Your task to perform on an android device: open app "Expedia: Hotels, Flights & Car" Image 0: 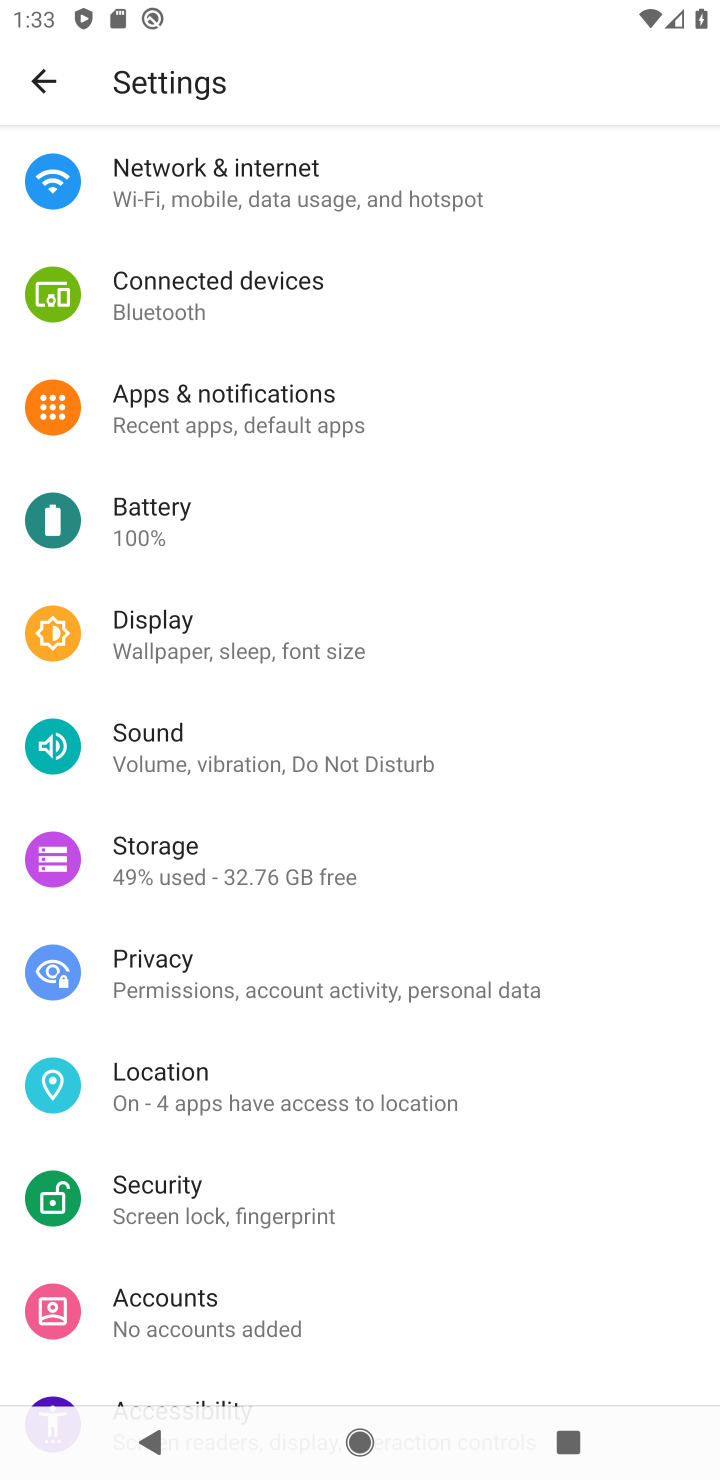
Step 0: press back button
Your task to perform on an android device: open app "Expedia: Hotels, Flights & Car" Image 1: 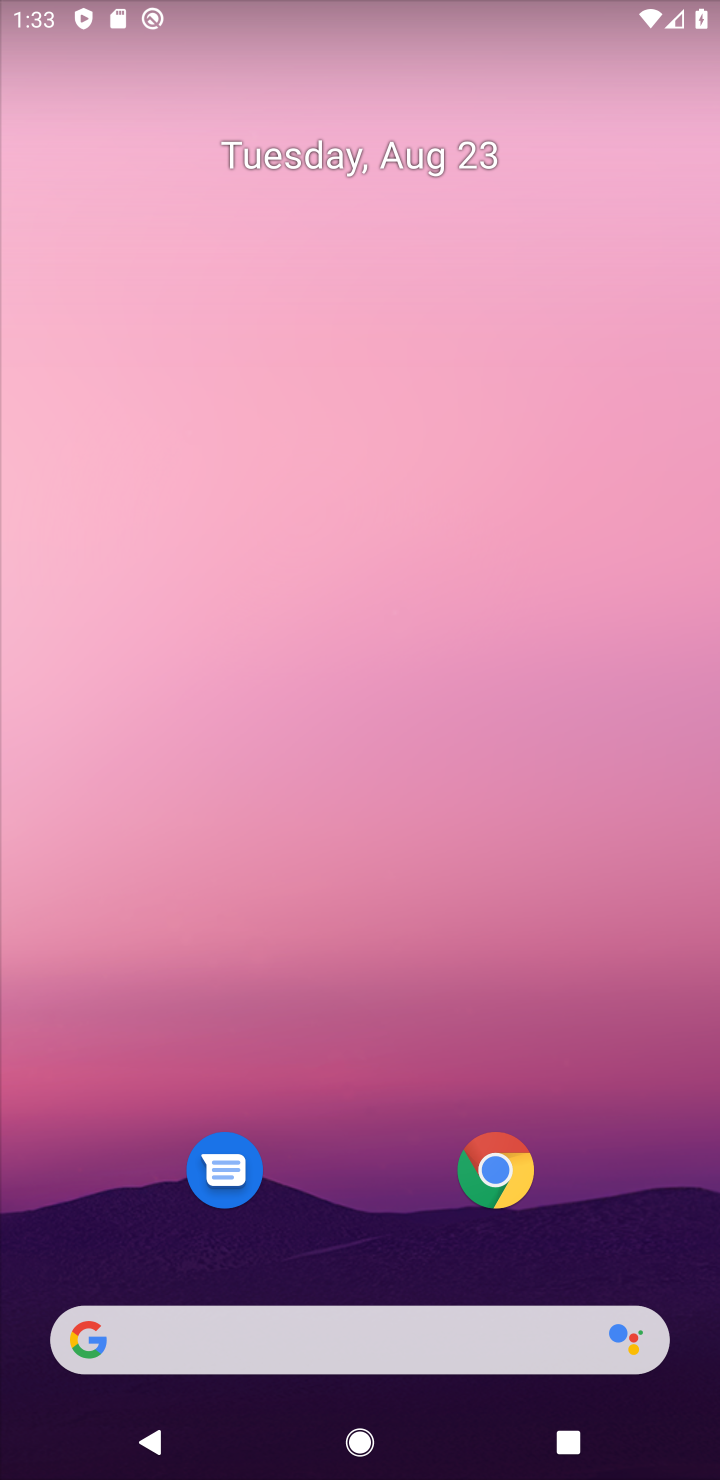
Step 1: drag from (346, 1229) to (605, 51)
Your task to perform on an android device: open app "Expedia: Hotels, Flights & Car" Image 2: 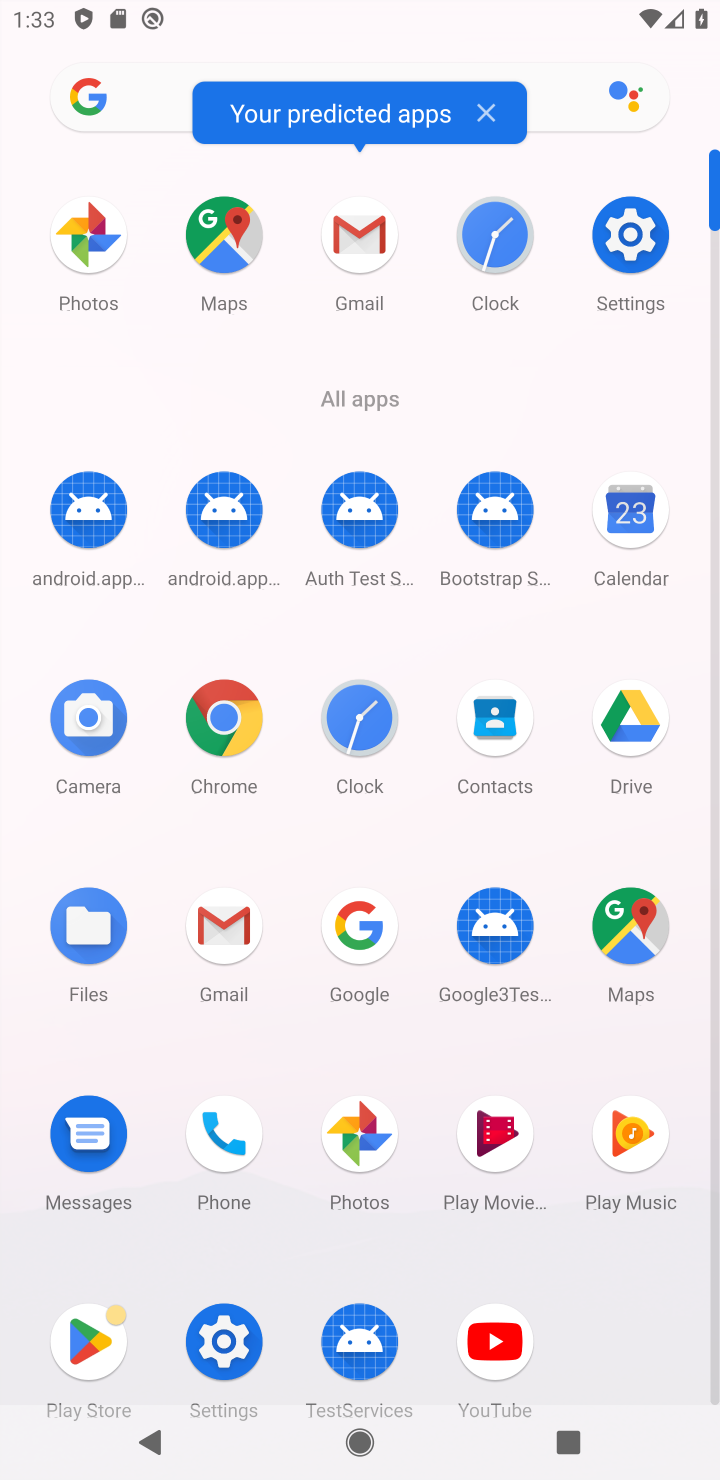
Step 2: click (91, 1337)
Your task to perform on an android device: open app "Expedia: Hotels, Flights & Car" Image 3: 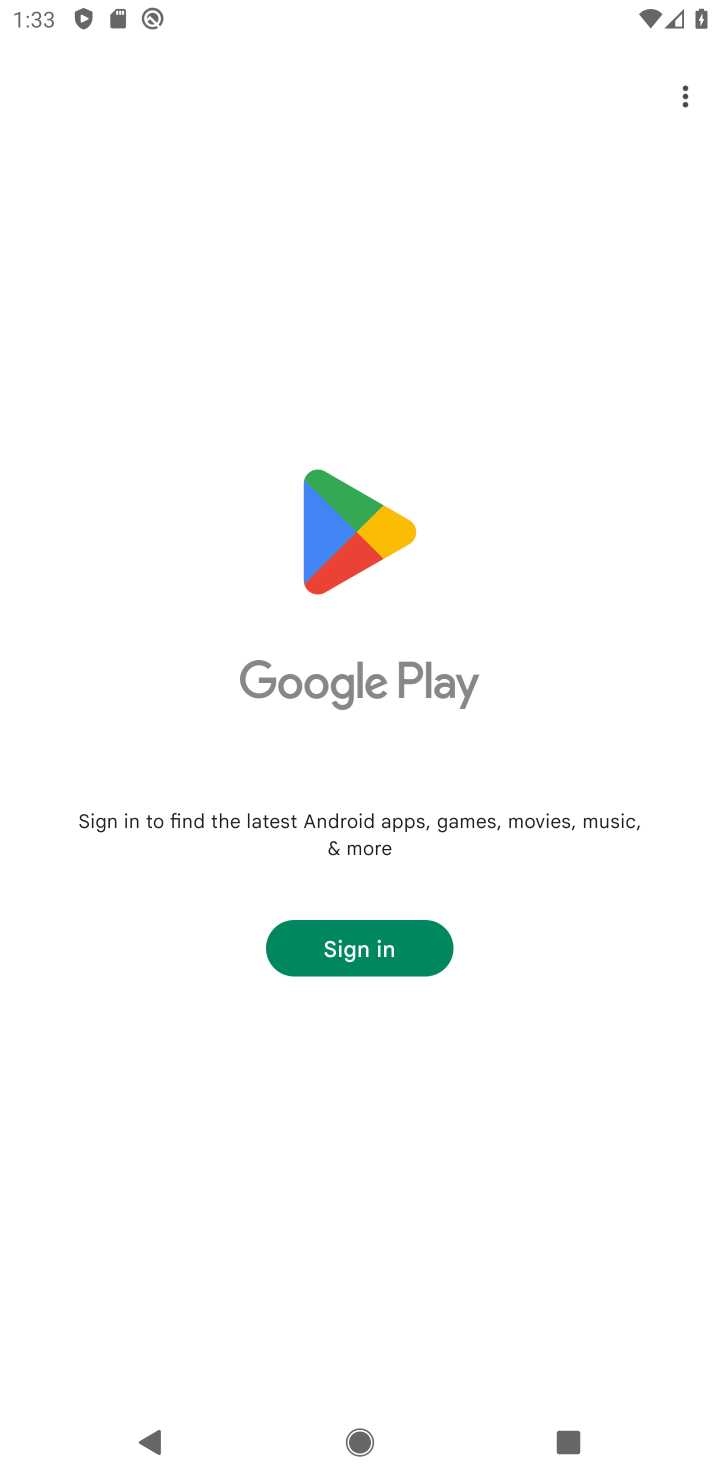
Step 3: click (379, 963)
Your task to perform on an android device: open app "Expedia: Hotels, Flights & Car" Image 4: 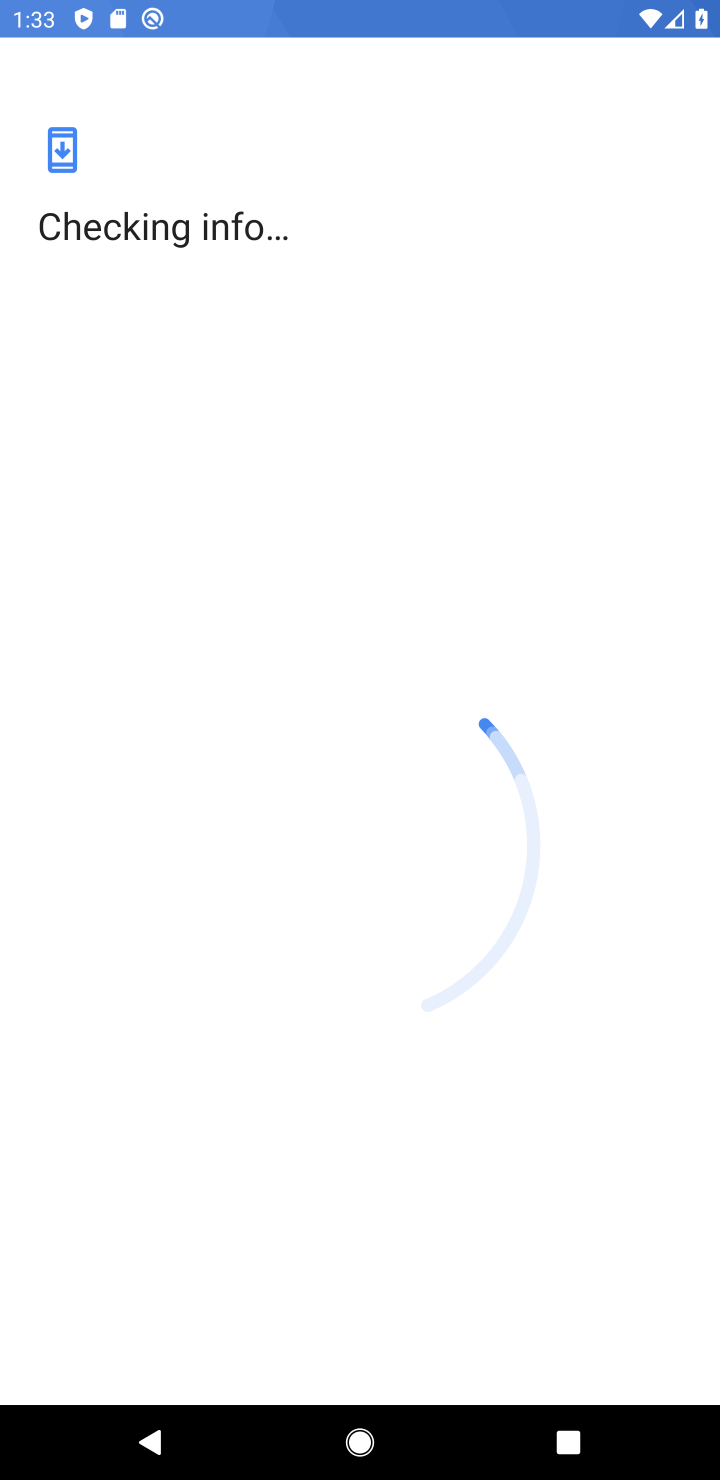
Step 4: press back button
Your task to perform on an android device: open app "Expedia: Hotels, Flights & Car" Image 5: 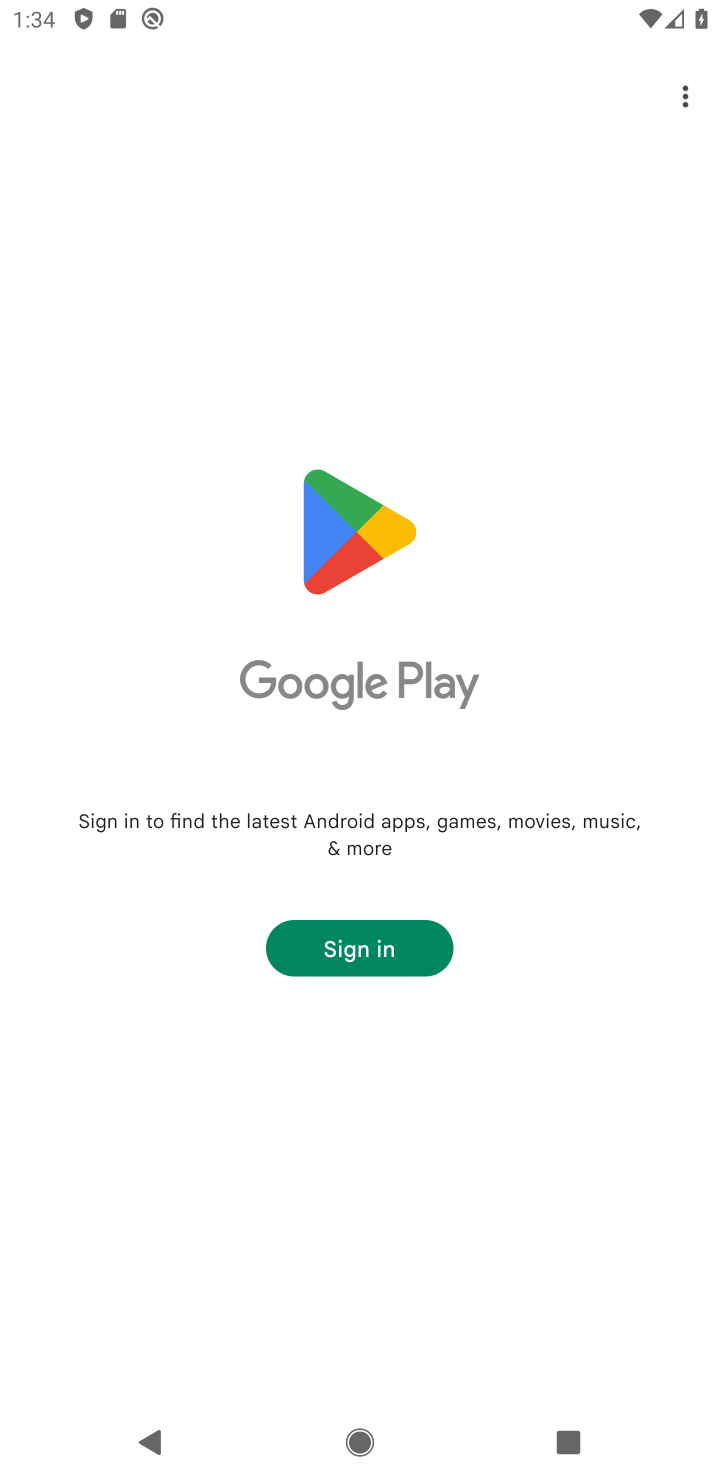
Step 5: press home button
Your task to perform on an android device: open app "Expedia: Hotels, Flights & Car" Image 6: 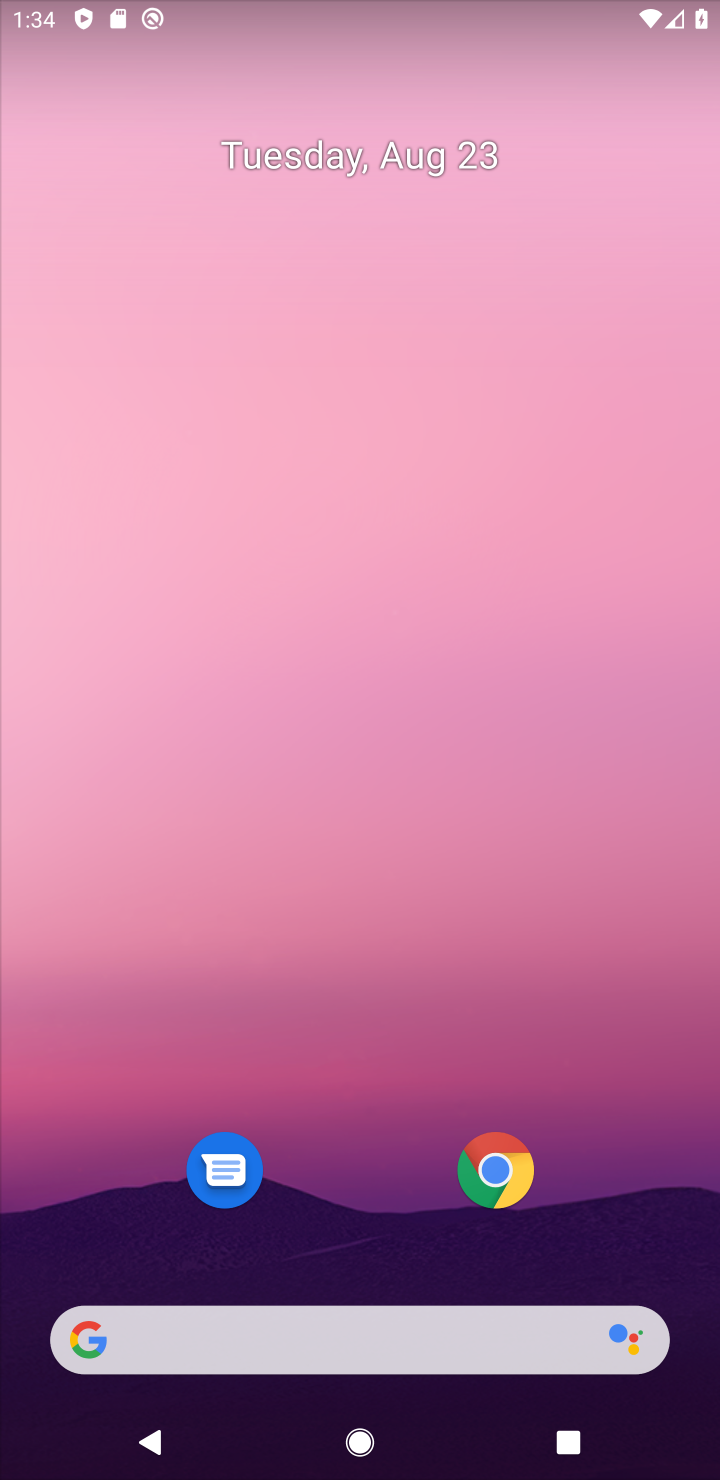
Step 6: drag from (371, 1221) to (525, 39)
Your task to perform on an android device: open app "Expedia: Hotels, Flights & Car" Image 7: 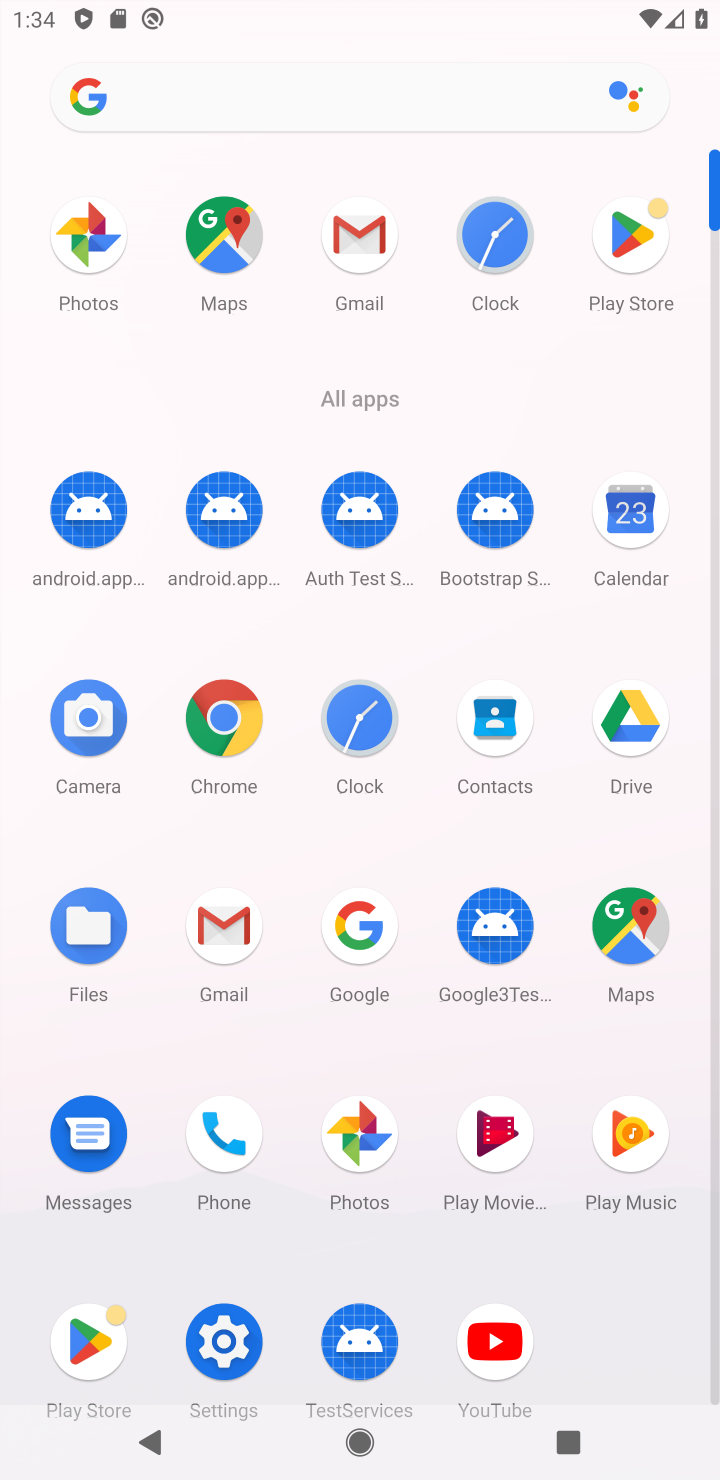
Step 7: click (631, 248)
Your task to perform on an android device: open app "Expedia: Hotels, Flights & Car" Image 8: 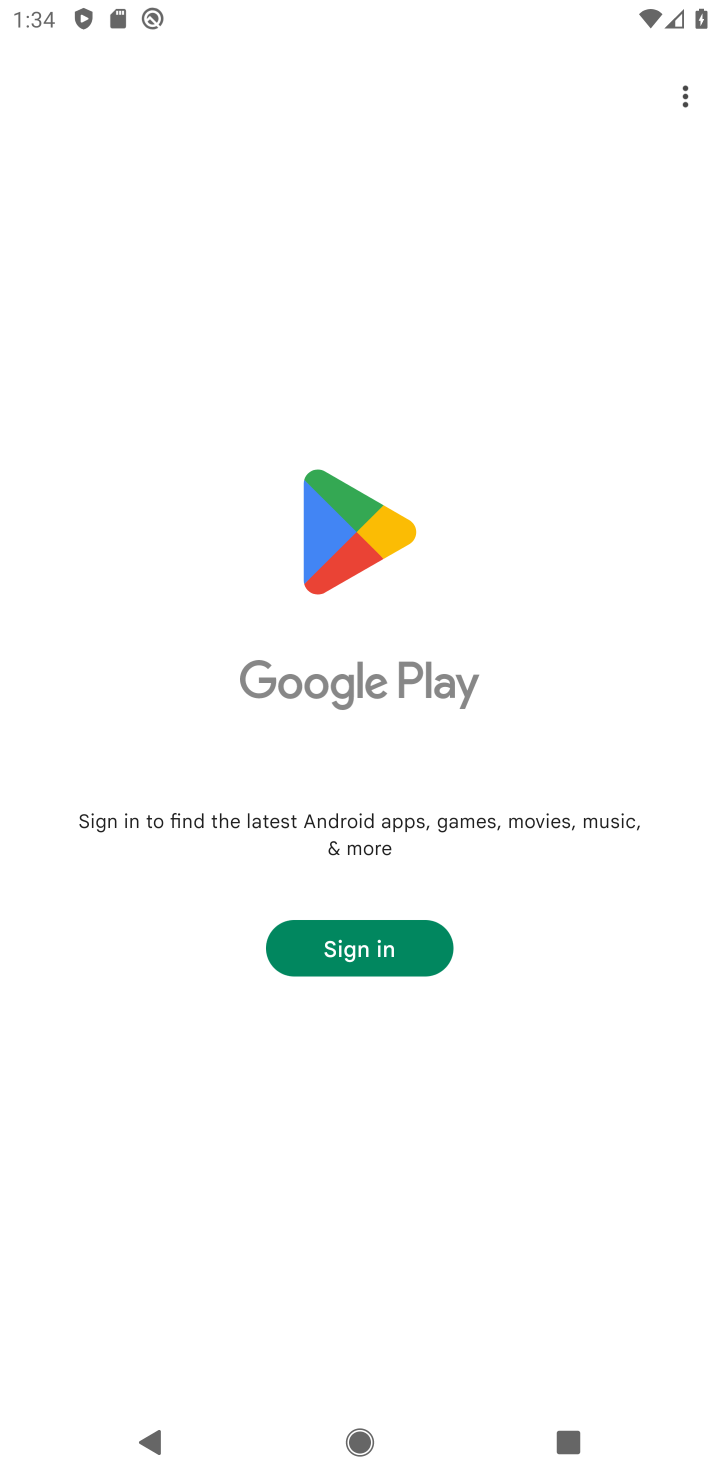
Step 8: task complete